Your task to perform on an android device: See recent photos Image 0: 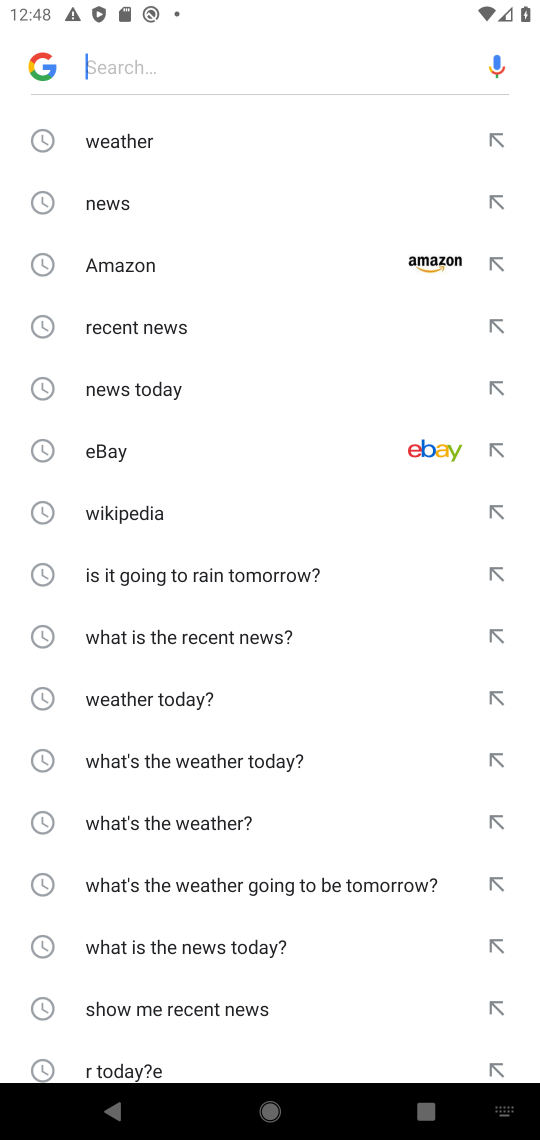
Step 0: press home button
Your task to perform on an android device: See recent photos Image 1: 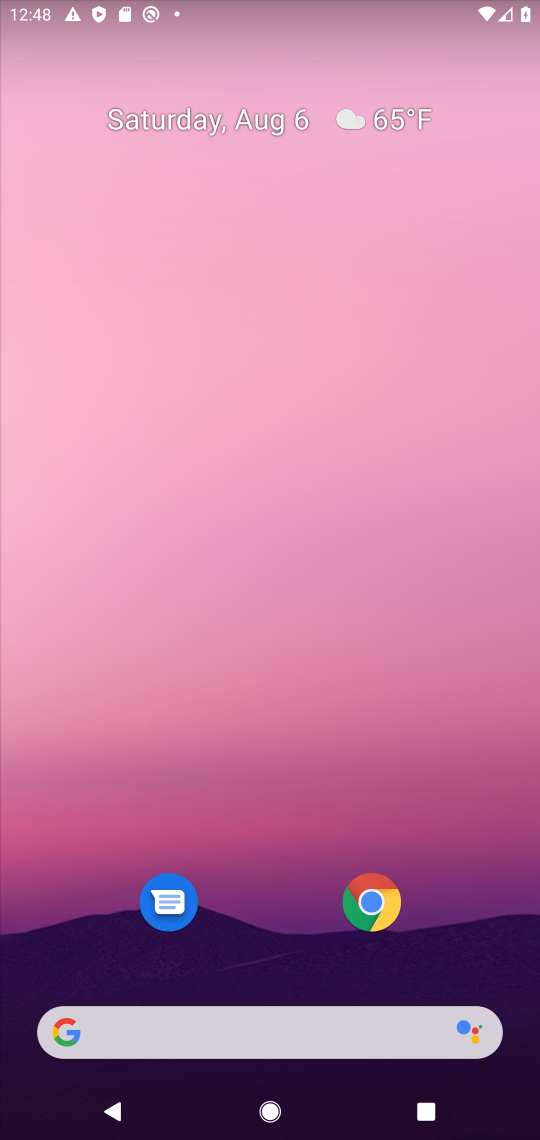
Step 1: drag from (264, 883) to (266, 204)
Your task to perform on an android device: See recent photos Image 2: 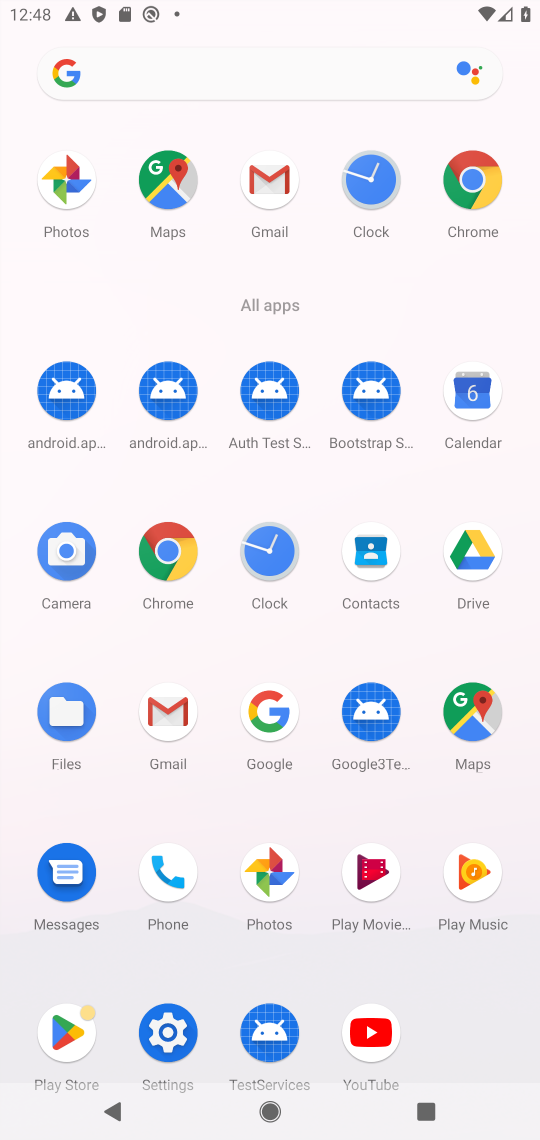
Step 2: click (75, 179)
Your task to perform on an android device: See recent photos Image 3: 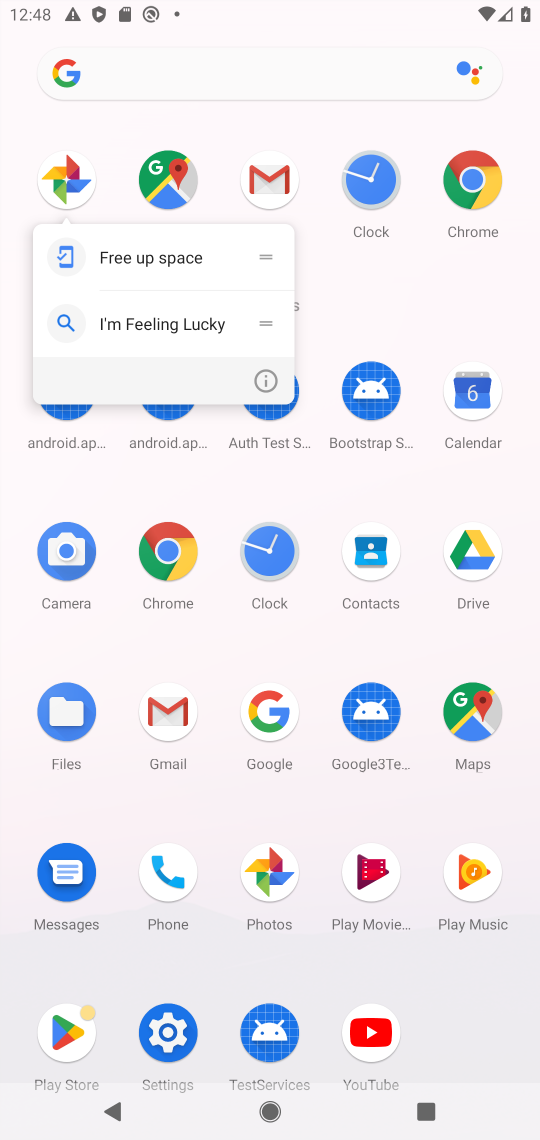
Step 3: click (66, 175)
Your task to perform on an android device: See recent photos Image 4: 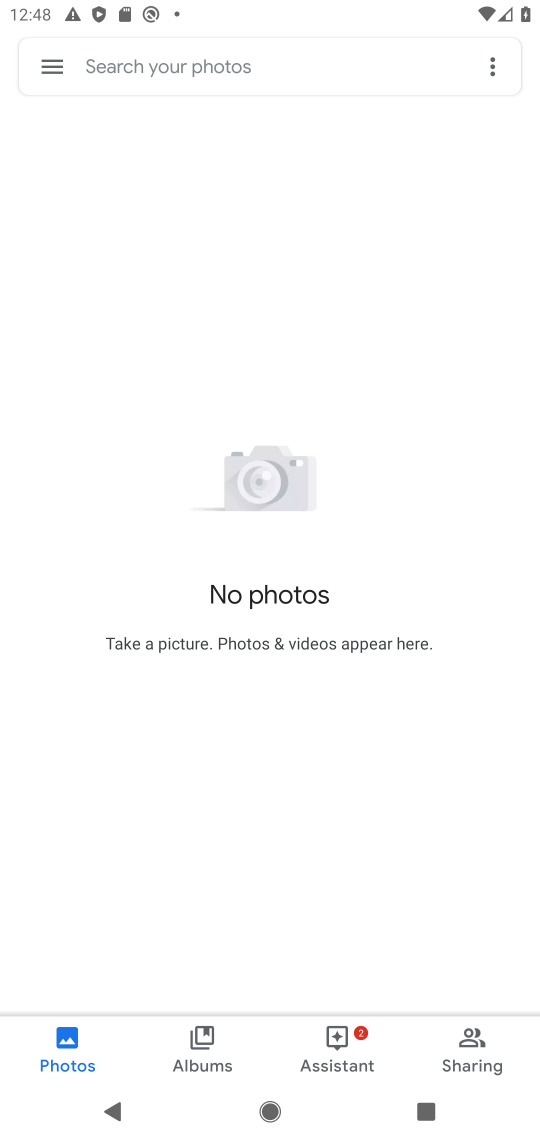
Step 4: task complete